Your task to perform on an android device: Open Android settings Image 0: 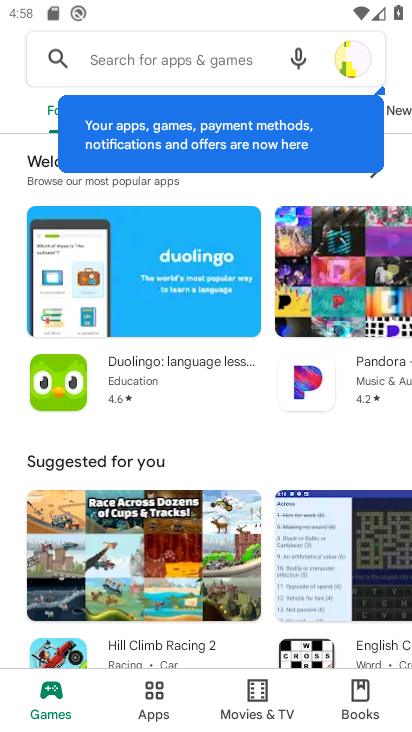
Step 0: press home button
Your task to perform on an android device: Open Android settings Image 1: 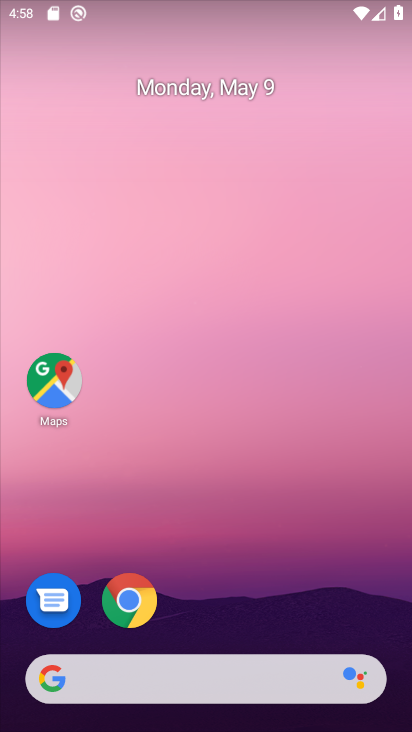
Step 1: drag from (288, 664) to (296, 20)
Your task to perform on an android device: Open Android settings Image 2: 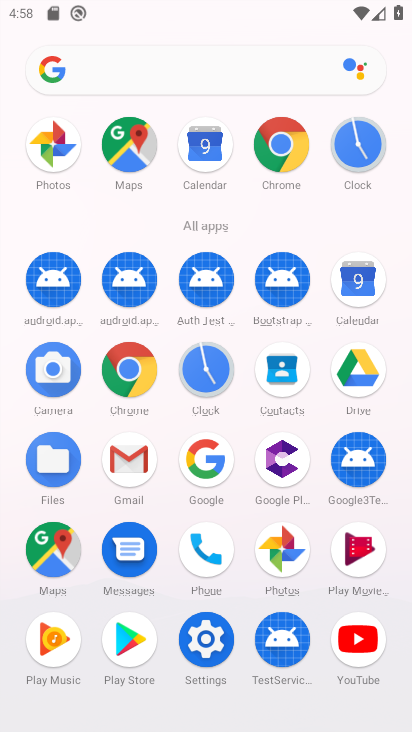
Step 2: click (206, 637)
Your task to perform on an android device: Open Android settings Image 3: 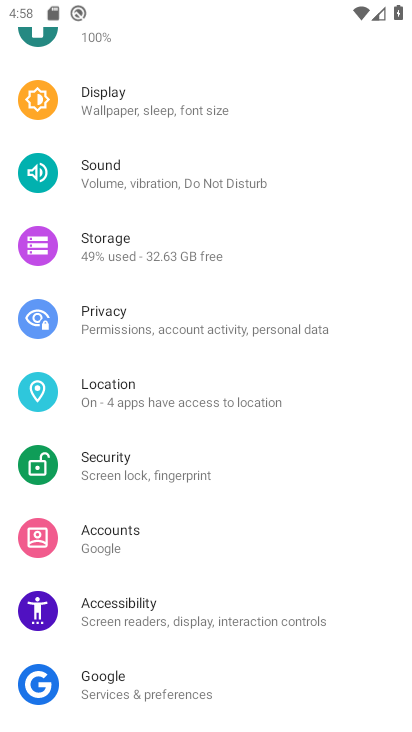
Step 3: drag from (231, 672) to (282, 314)
Your task to perform on an android device: Open Android settings Image 4: 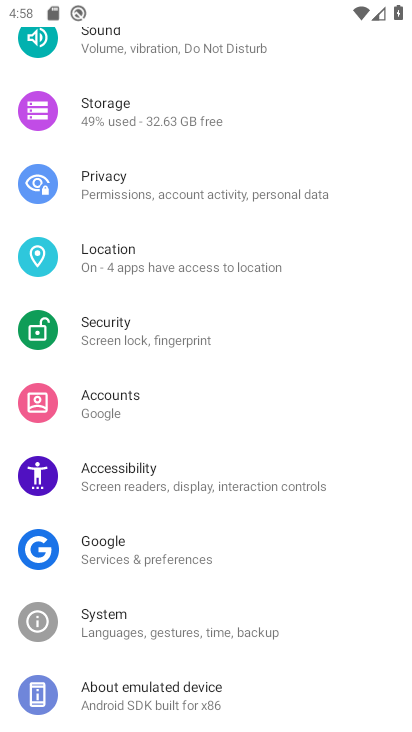
Step 4: click (282, 702)
Your task to perform on an android device: Open Android settings Image 5: 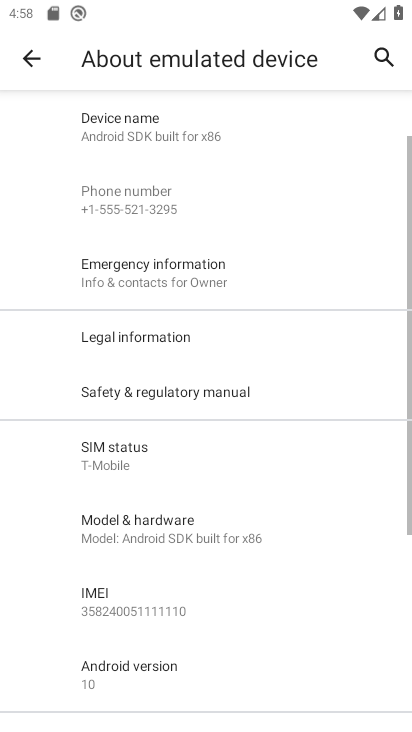
Step 5: task complete